Your task to perform on an android device: check google app version Image 0: 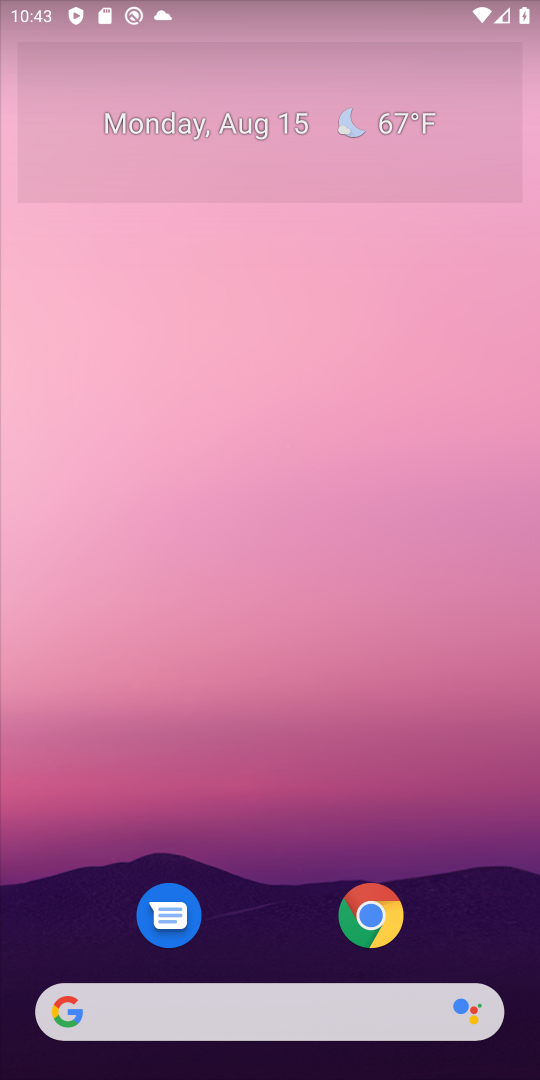
Step 0: drag from (440, 857) to (295, 27)
Your task to perform on an android device: check google app version Image 1: 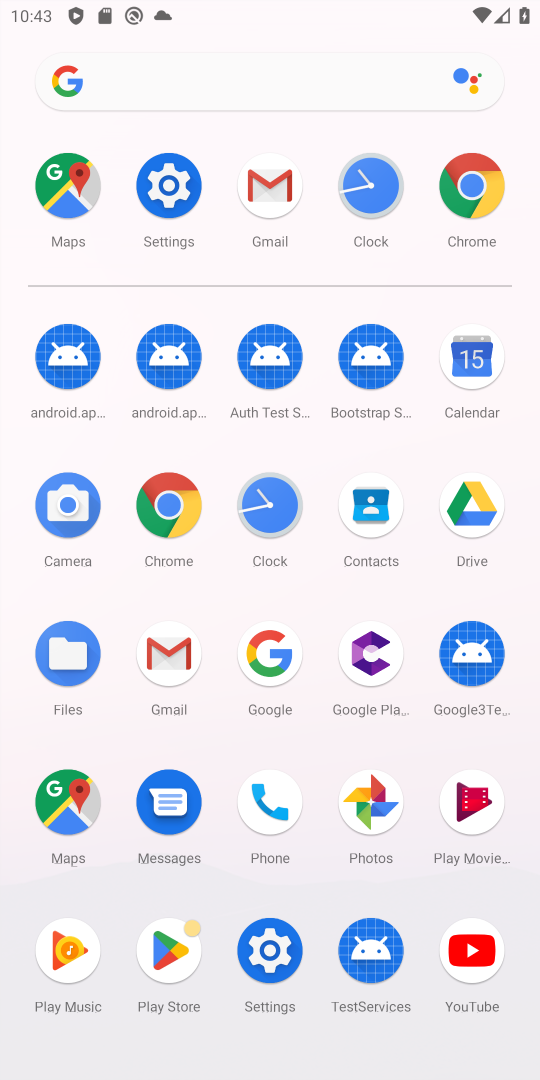
Step 1: click (265, 662)
Your task to perform on an android device: check google app version Image 2: 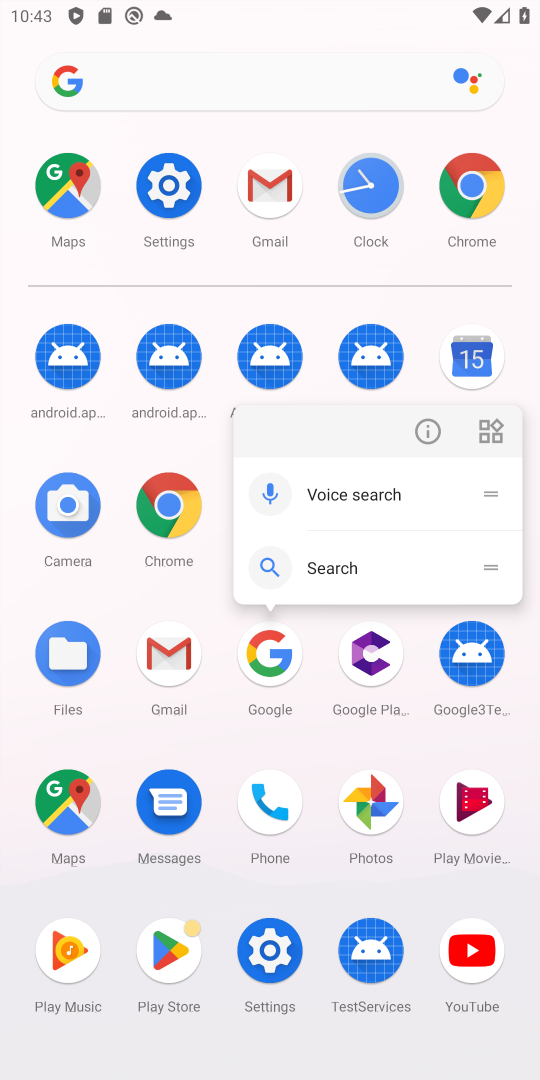
Step 2: click (440, 431)
Your task to perform on an android device: check google app version Image 3: 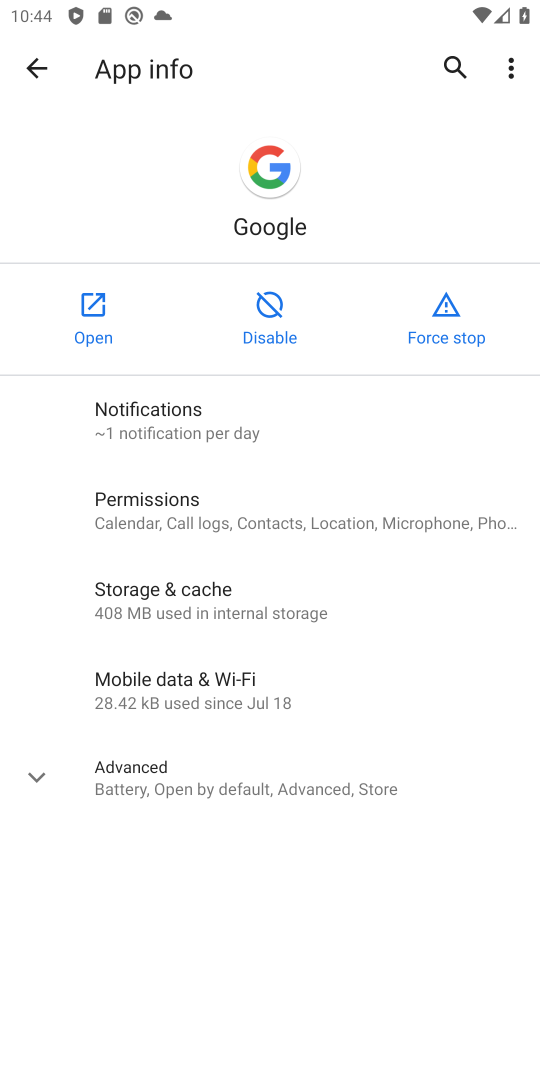
Step 3: click (219, 787)
Your task to perform on an android device: check google app version Image 4: 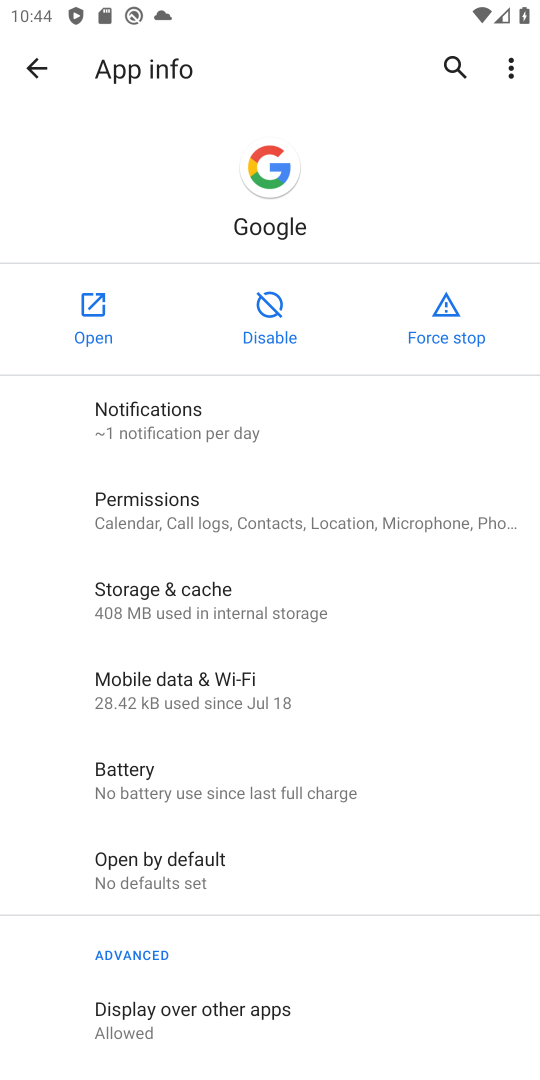
Step 4: task complete